Your task to perform on an android device: What is the news today? Image 0: 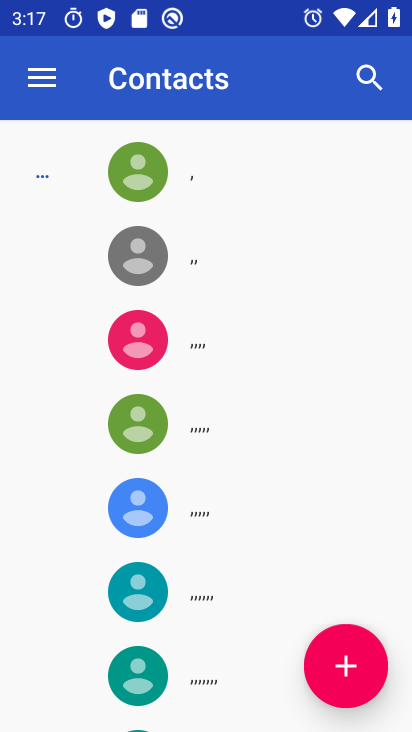
Step 0: press home button
Your task to perform on an android device: What is the news today? Image 1: 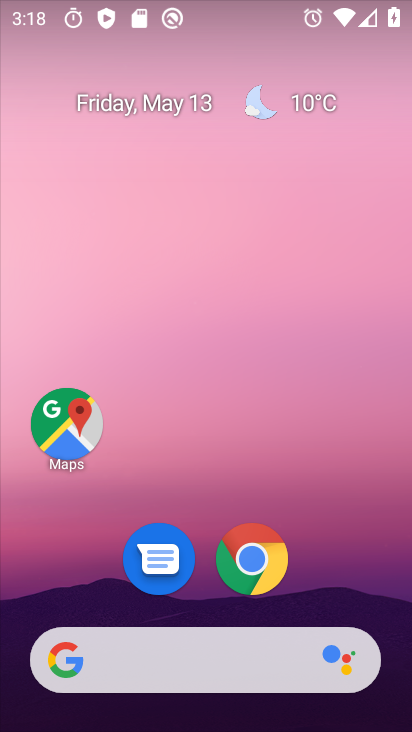
Step 1: drag from (211, 600) to (187, 273)
Your task to perform on an android device: What is the news today? Image 2: 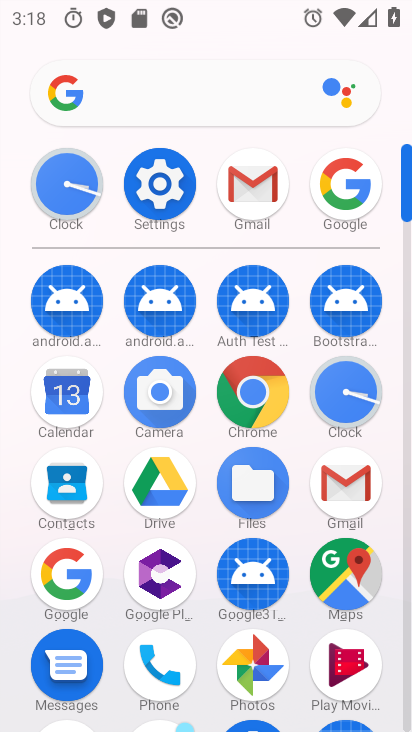
Step 2: click (328, 200)
Your task to perform on an android device: What is the news today? Image 3: 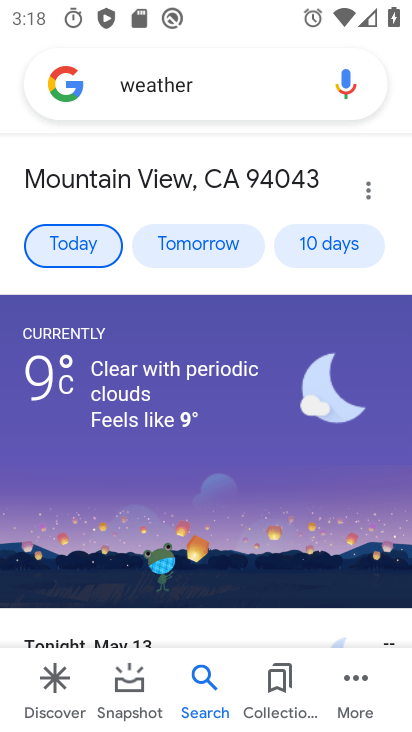
Step 3: click (202, 82)
Your task to perform on an android device: What is the news today? Image 4: 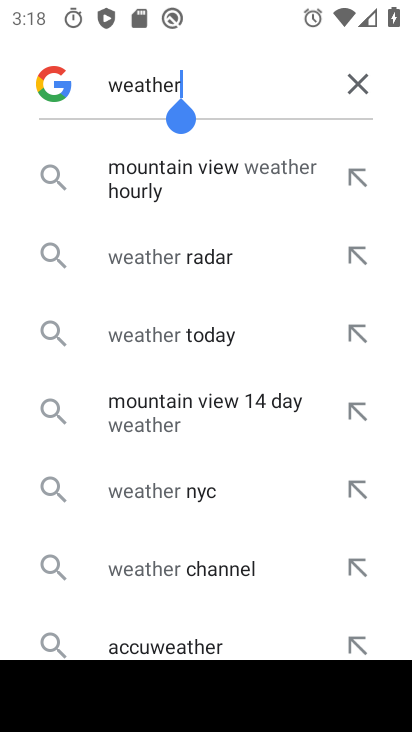
Step 4: click (359, 70)
Your task to perform on an android device: What is the news today? Image 5: 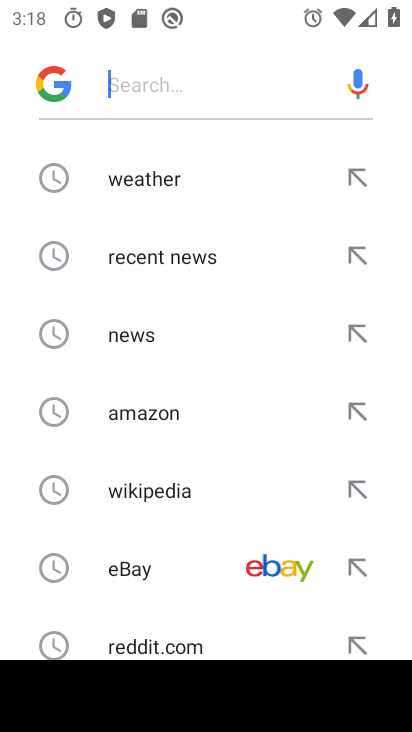
Step 5: click (179, 328)
Your task to perform on an android device: What is the news today? Image 6: 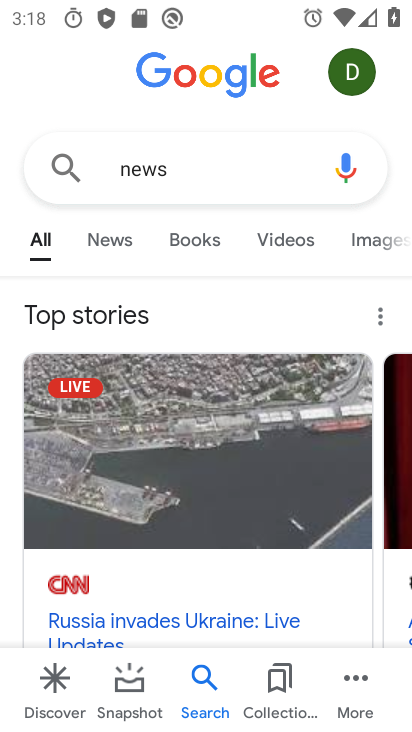
Step 6: click (124, 237)
Your task to perform on an android device: What is the news today? Image 7: 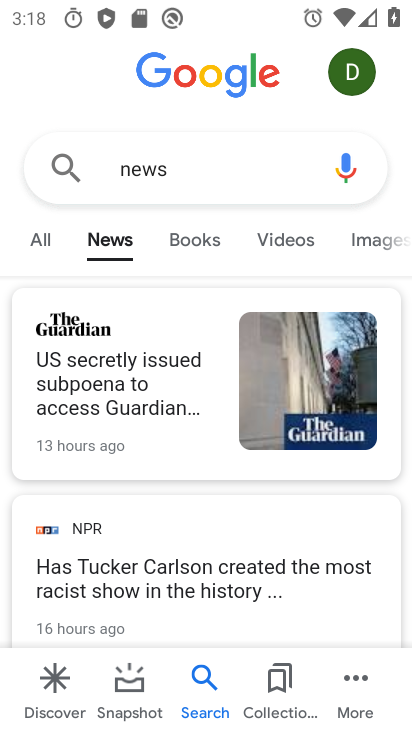
Step 7: task complete